Your task to perform on an android device: turn on wifi Image 0: 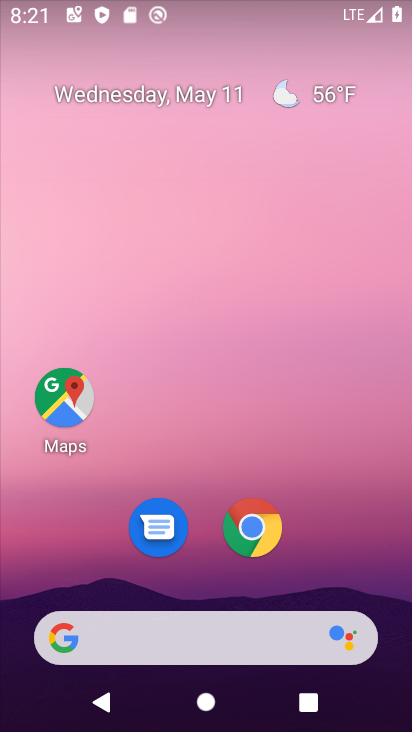
Step 0: drag from (92, 622) to (232, 143)
Your task to perform on an android device: turn on wifi Image 1: 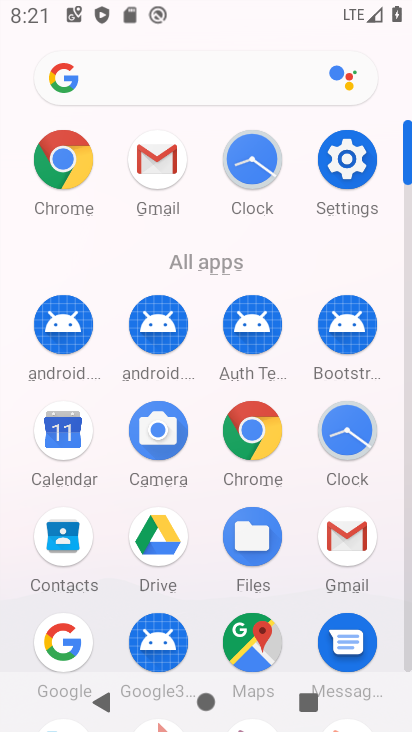
Step 1: click (322, 151)
Your task to perform on an android device: turn on wifi Image 2: 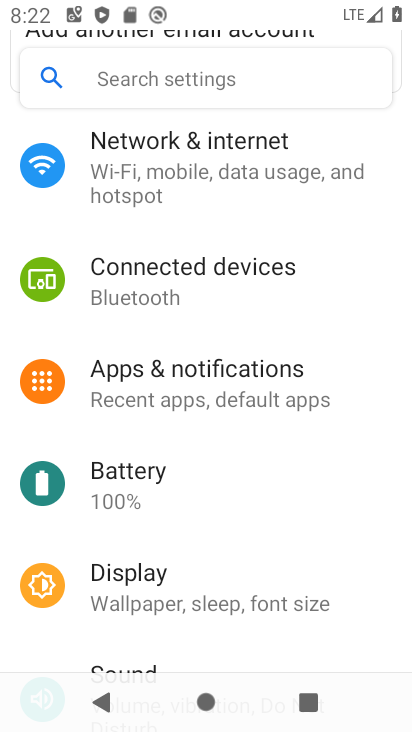
Step 2: click (220, 190)
Your task to perform on an android device: turn on wifi Image 3: 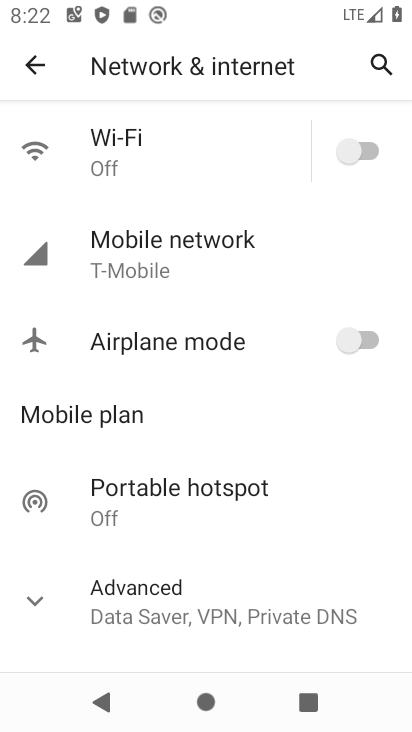
Step 3: click (373, 146)
Your task to perform on an android device: turn on wifi Image 4: 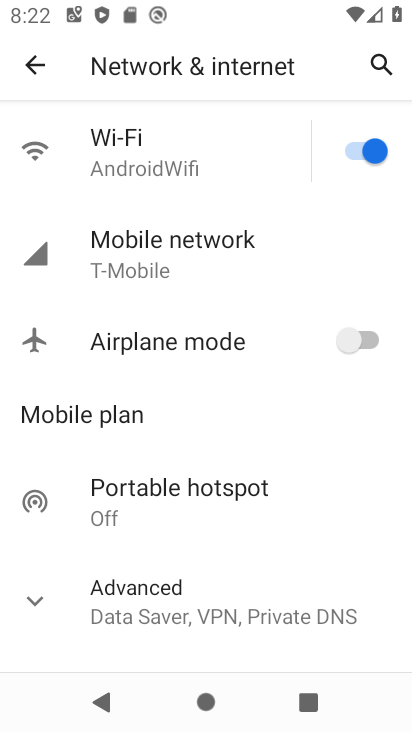
Step 4: task complete